Your task to perform on an android device: delete location history Image 0: 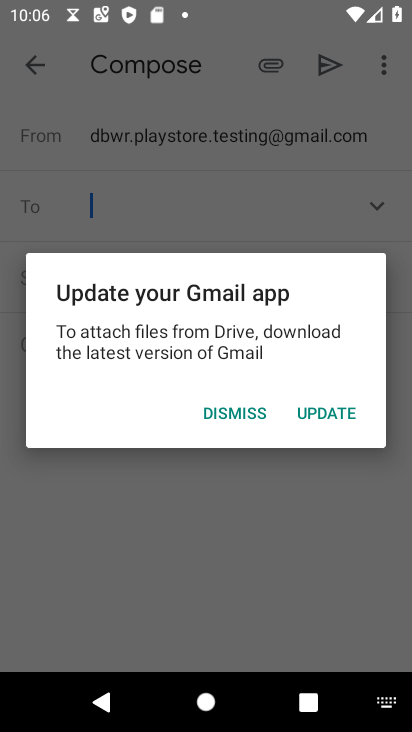
Step 0: press home button
Your task to perform on an android device: delete location history Image 1: 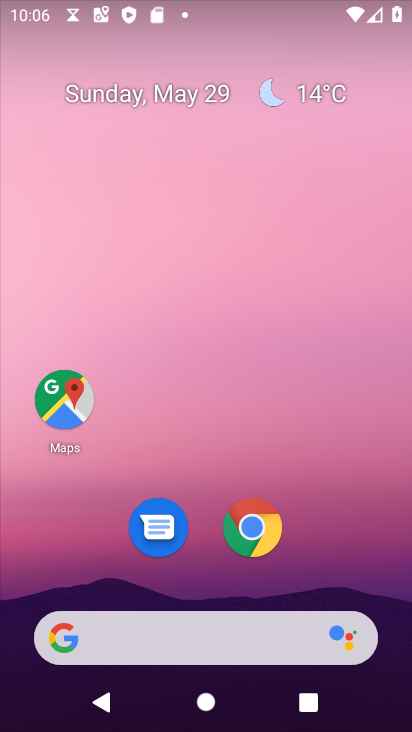
Step 1: click (64, 411)
Your task to perform on an android device: delete location history Image 2: 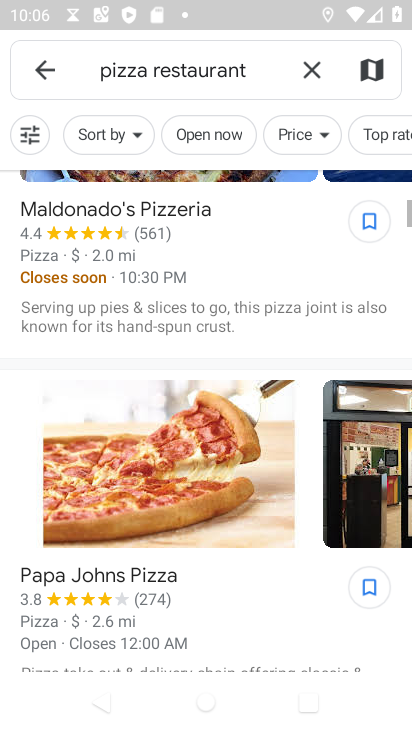
Step 2: click (45, 77)
Your task to perform on an android device: delete location history Image 3: 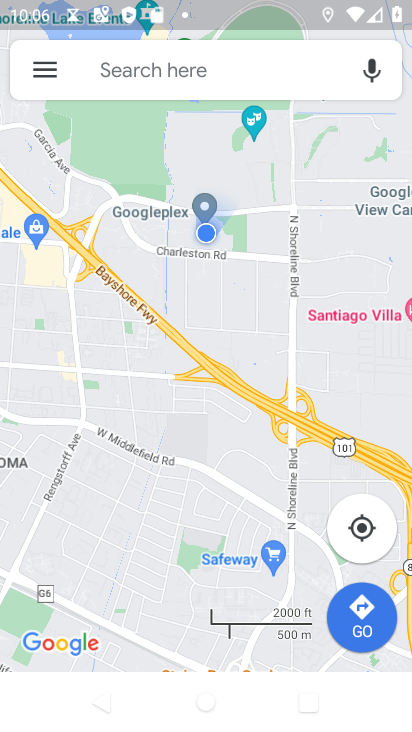
Step 3: click (43, 71)
Your task to perform on an android device: delete location history Image 4: 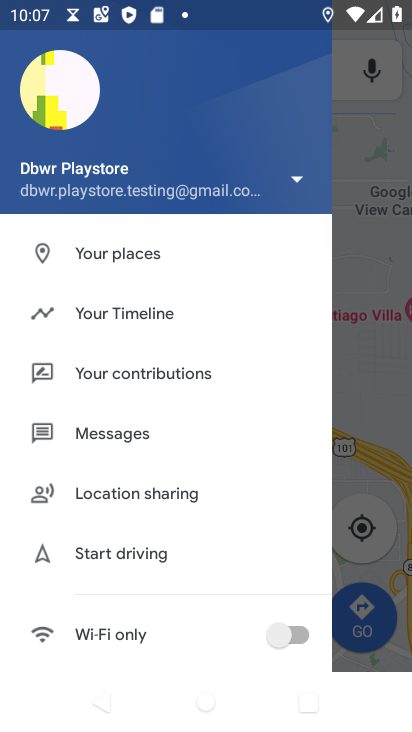
Step 4: drag from (174, 590) to (301, 141)
Your task to perform on an android device: delete location history Image 5: 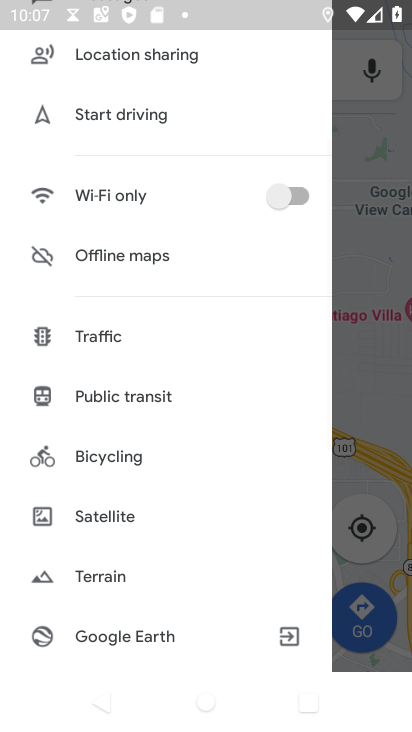
Step 5: drag from (193, 555) to (284, 171)
Your task to perform on an android device: delete location history Image 6: 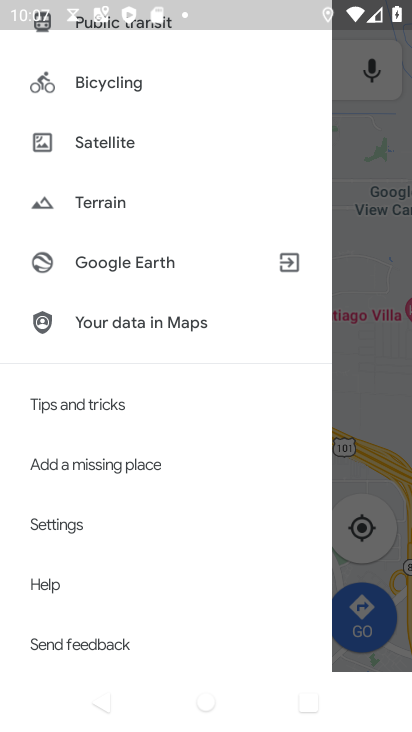
Step 6: drag from (229, 138) to (241, 618)
Your task to perform on an android device: delete location history Image 7: 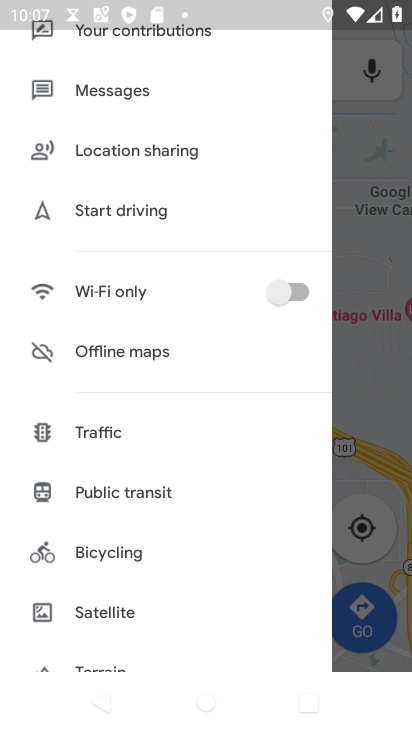
Step 7: drag from (247, 102) to (235, 654)
Your task to perform on an android device: delete location history Image 8: 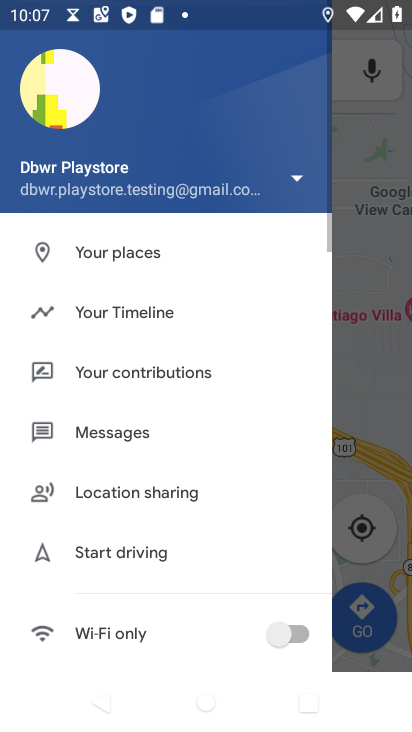
Step 8: click (139, 309)
Your task to perform on an android device: delete location history Image 9: 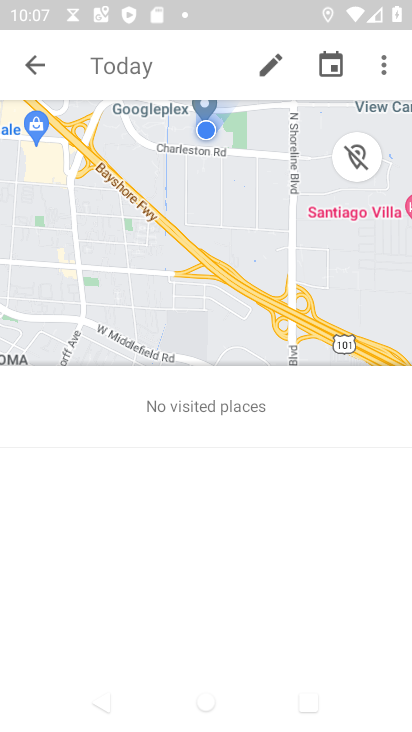
Step 9: click (381, 69)
Your task to perform on an android device: delete location history Image 10: 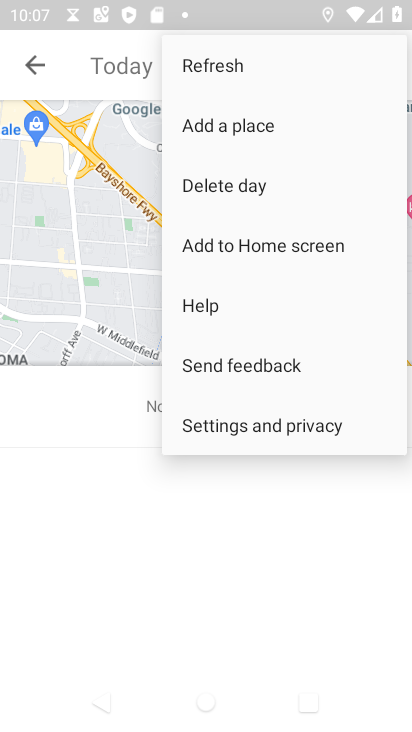
Step 10: click (260, 422)
Your task to perform on an android device: delete location history Image 11: 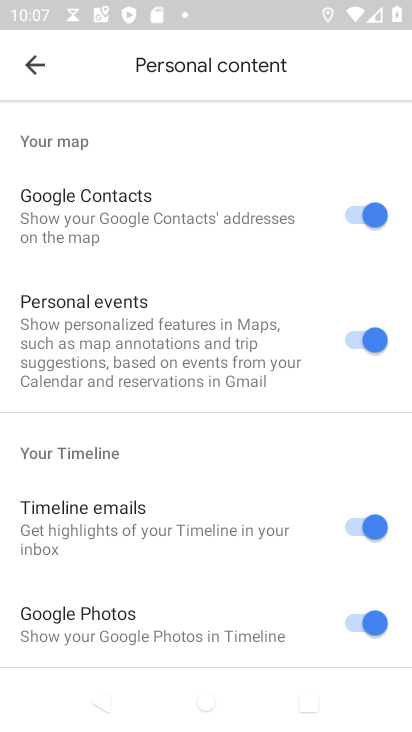
Step 11: drag from (191, 596) to (305, 4)
Your task to perform on an android device: delete location history Image 12: 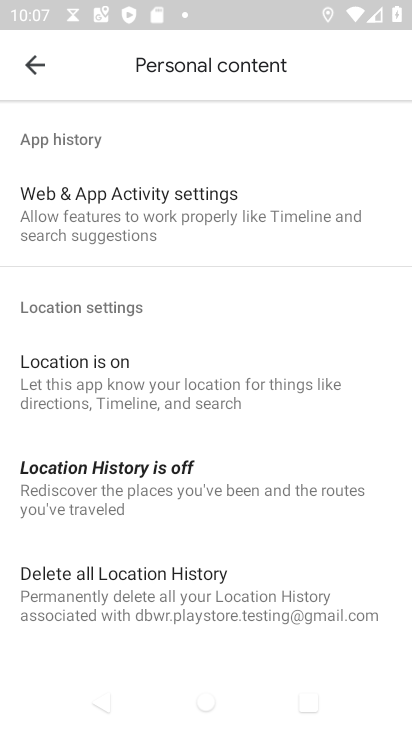
Step 12: click (105, 584)
Your task to perform on an android device: delete location history Image 13: 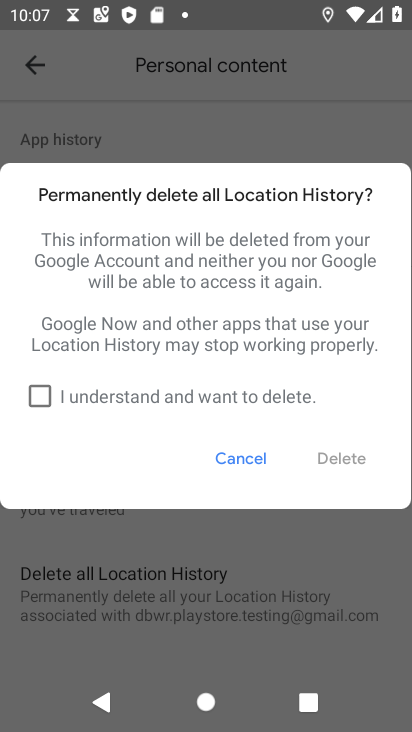
Step 13: click (52, 393)
Your task to perform on an android device: delete location history Image 14: 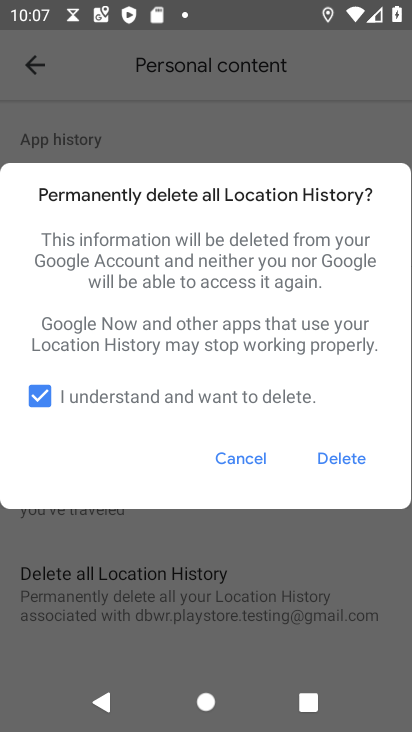
Step 14: click (354, 456)
Your task to perform on an android device: delete location history Image 15: 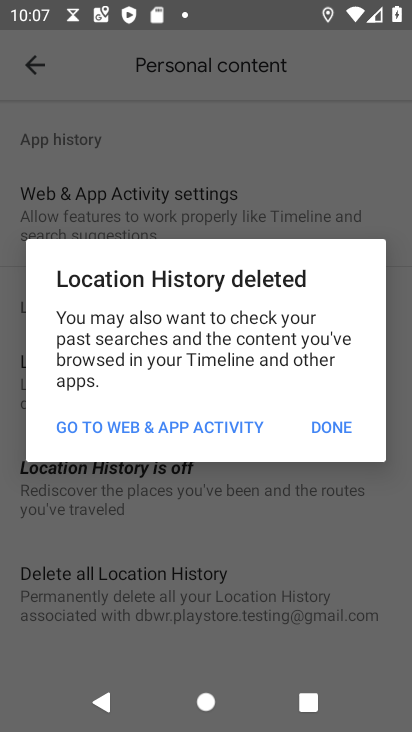
Step 15: click (331, 427)
Your task to perform on an android device: delete location history Image 16: 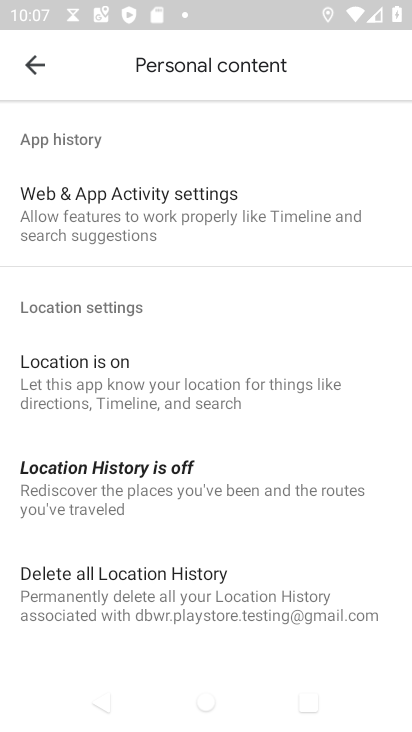
Step 16: task complete